Your task to perform on an android device: Open eBay Image 0: 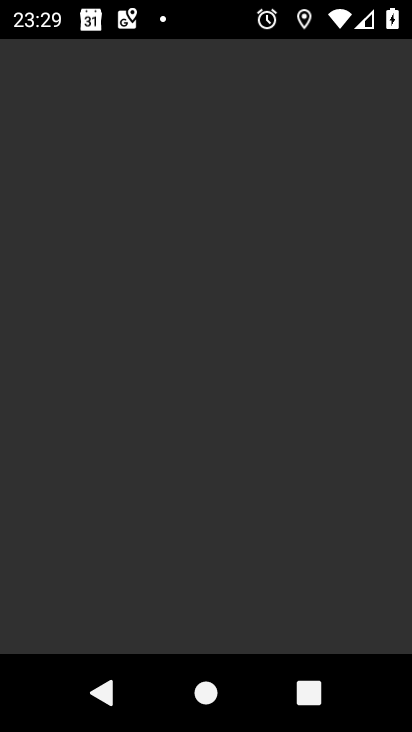
Step 0: press home button
Your task to perform on an android device: Open eBay Image 1: 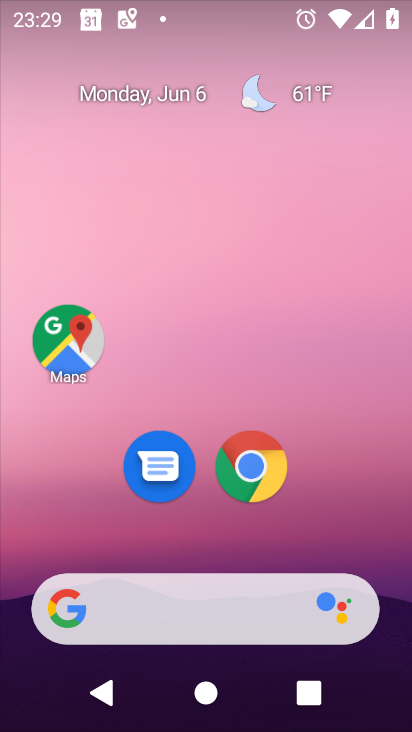
Step 1: drag from (237, 534) to (246, 49)
Your task to perform on an android device: Open eBay Image 2: 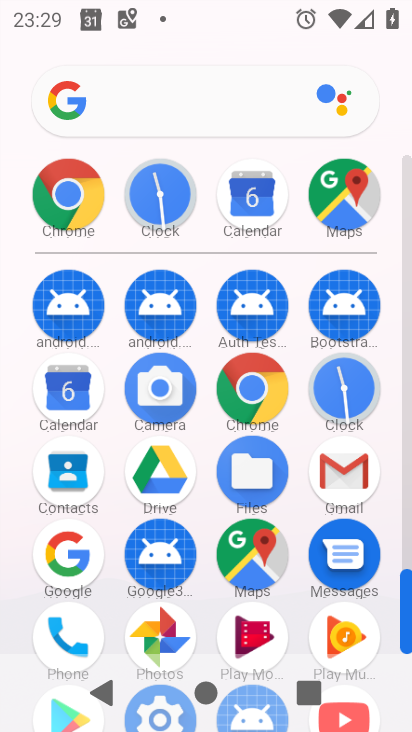
Step 2: click (55, 217)
Your task to perform on an android device: Open eBay Image 3: 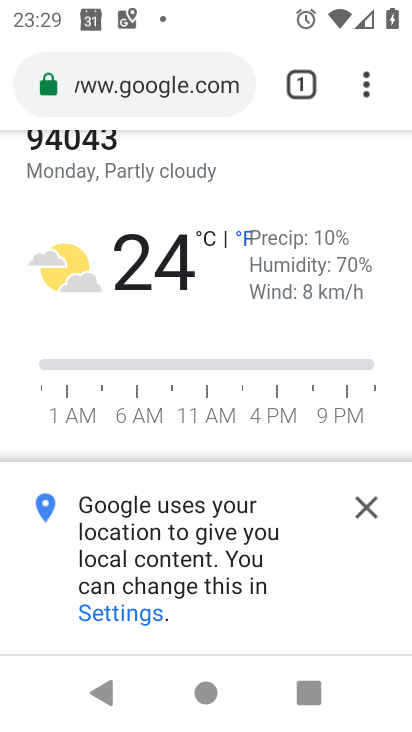
Step 3: click (368, 89)
Your task to perform on an android device: Open eBay Image 4: 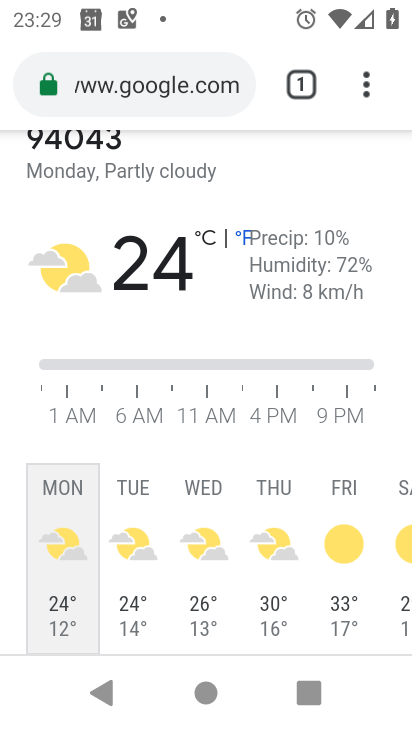
Step 4: drag from (365, 91) to (145, 185)
Your task to perform on an android device: Open eBay Image 5: 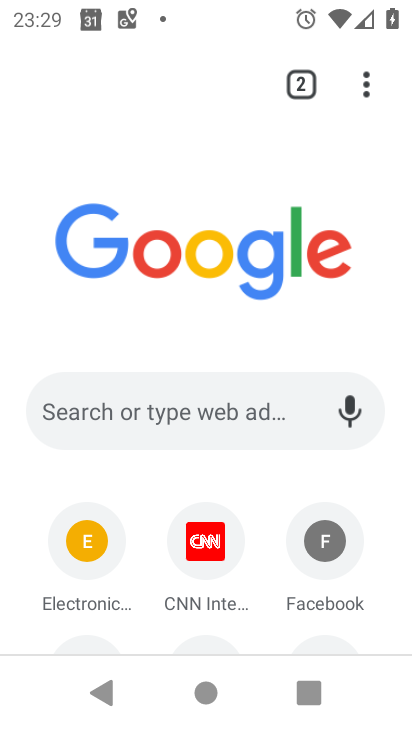
Step 5: drag from (284, 574) to (215, 172)
Your task to perform on an android device: Open eBay Image 6: 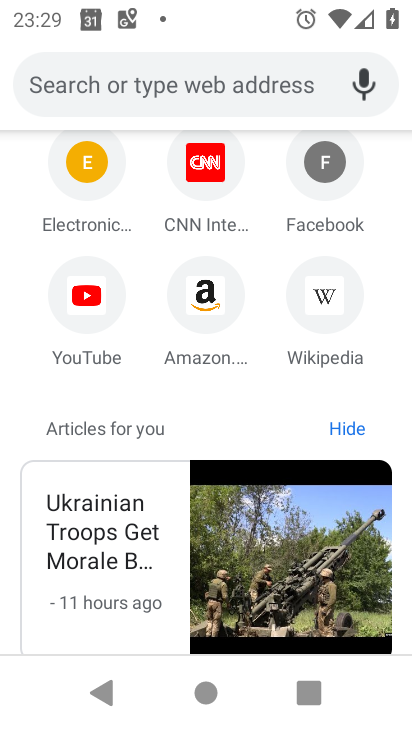
Step 6: drag from (206, 229) to (213, 365)
Your task to perform on an android device: Open eBay Image 7: 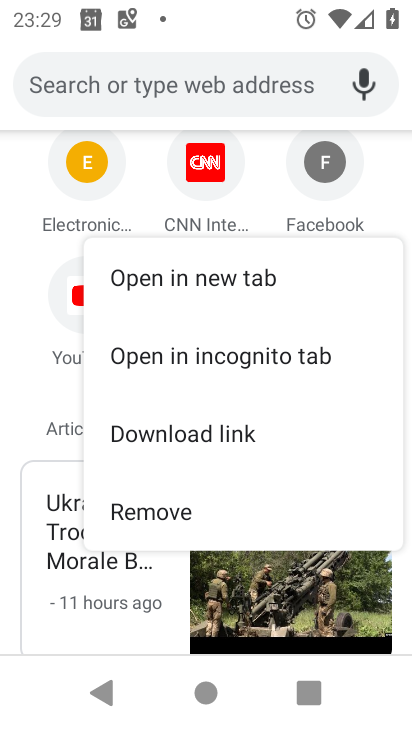
Step 7: click (91, 186)
Your task to perform on an android device: Open eBay Image 8: 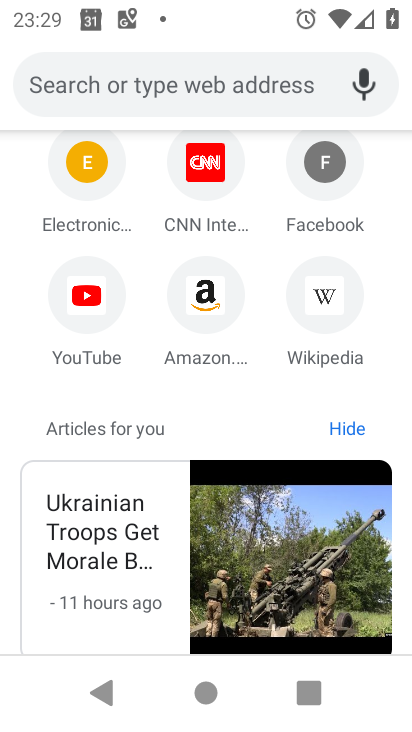
Step 8: click (91, 186)
Your task to perform on an android device: Open eBay Image 9: 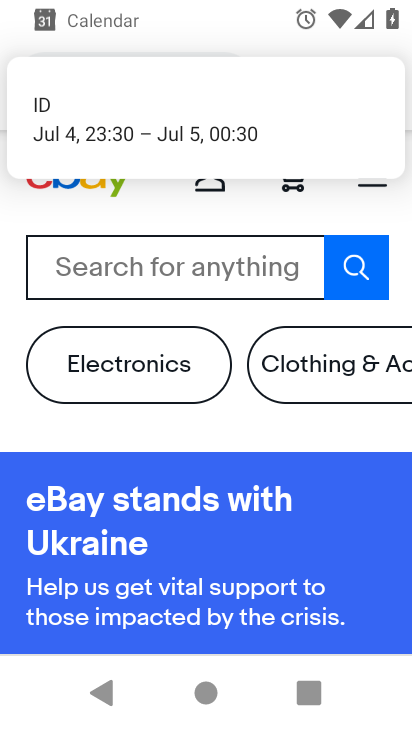
Step 9: task complete